Your task to perform on an android device: install app "Nova Launcher" Image 0: 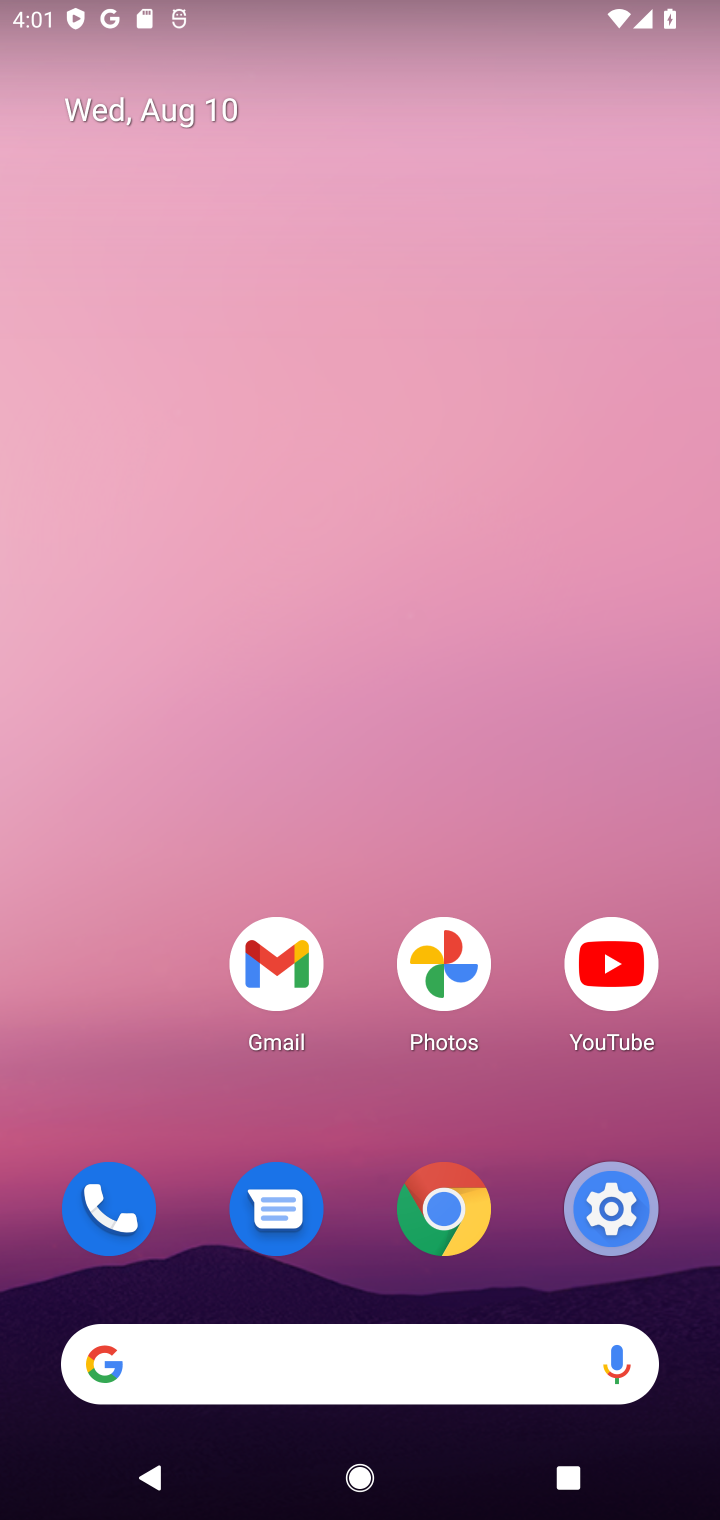
Step 0: click (615, 1218)
Your task to perform on an android device: install app "Nova Launcher" Image 1: 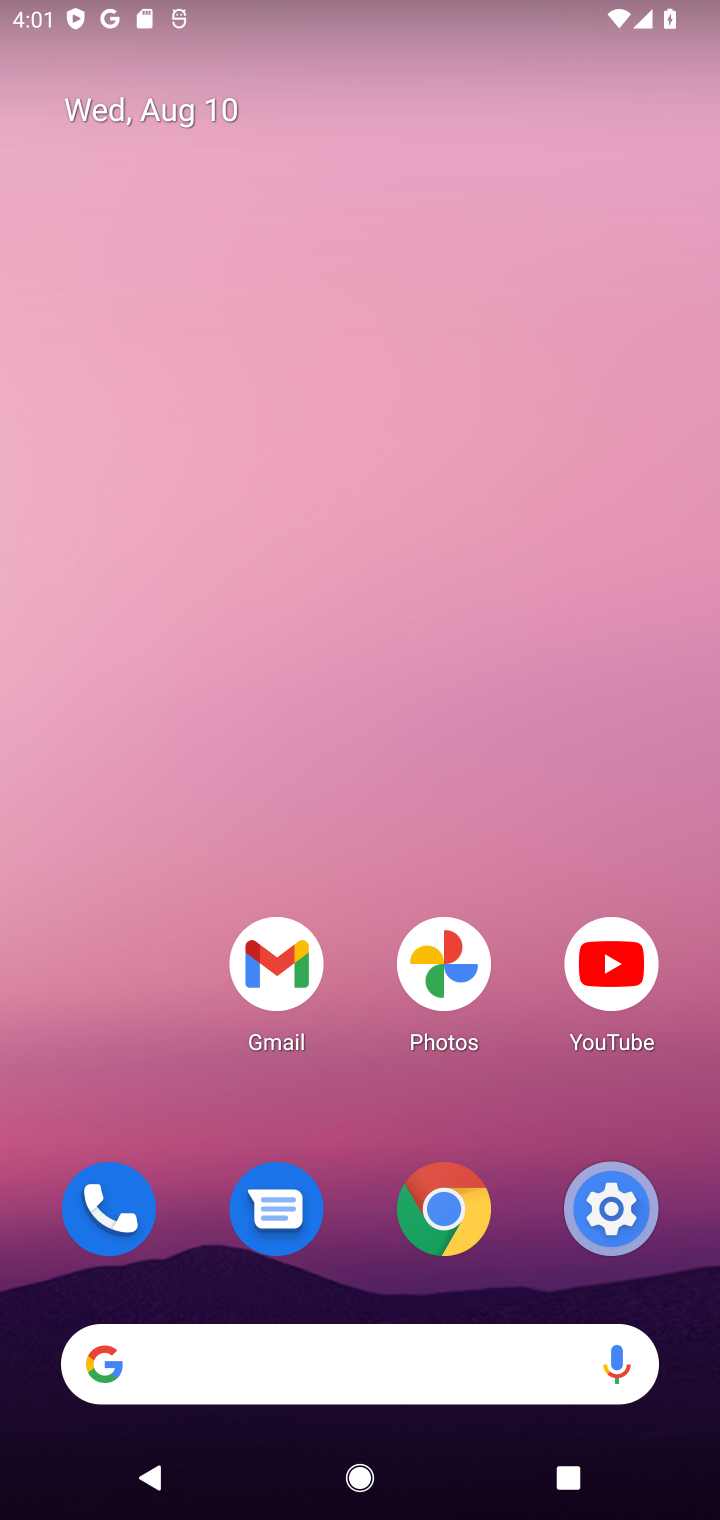
Step 1: click (615, 1218)
Your task to perform on an android device: install app "Nova Launcher" Image 2: 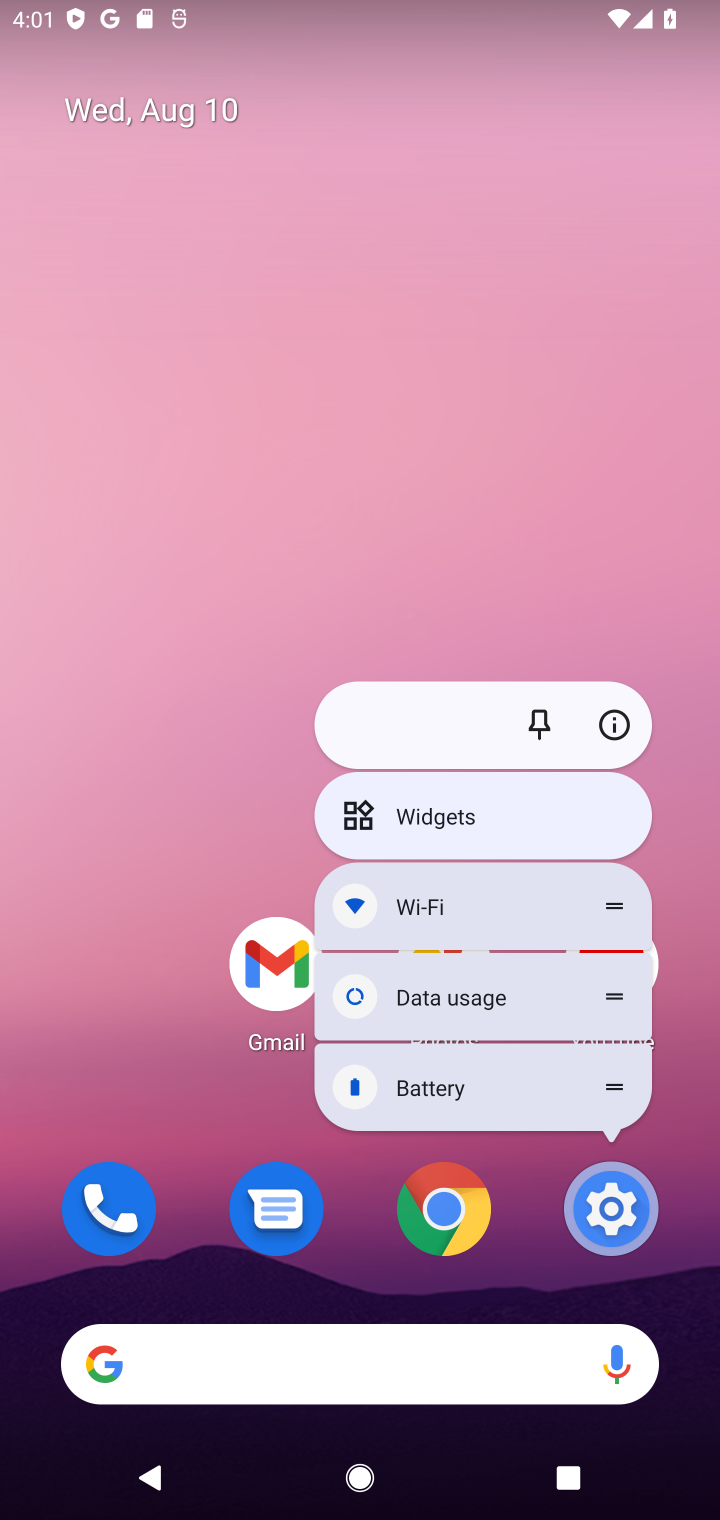
Step 2: click (476, 398)
Your task to perform on an android device: install app "Nova Launcher" Image 3: 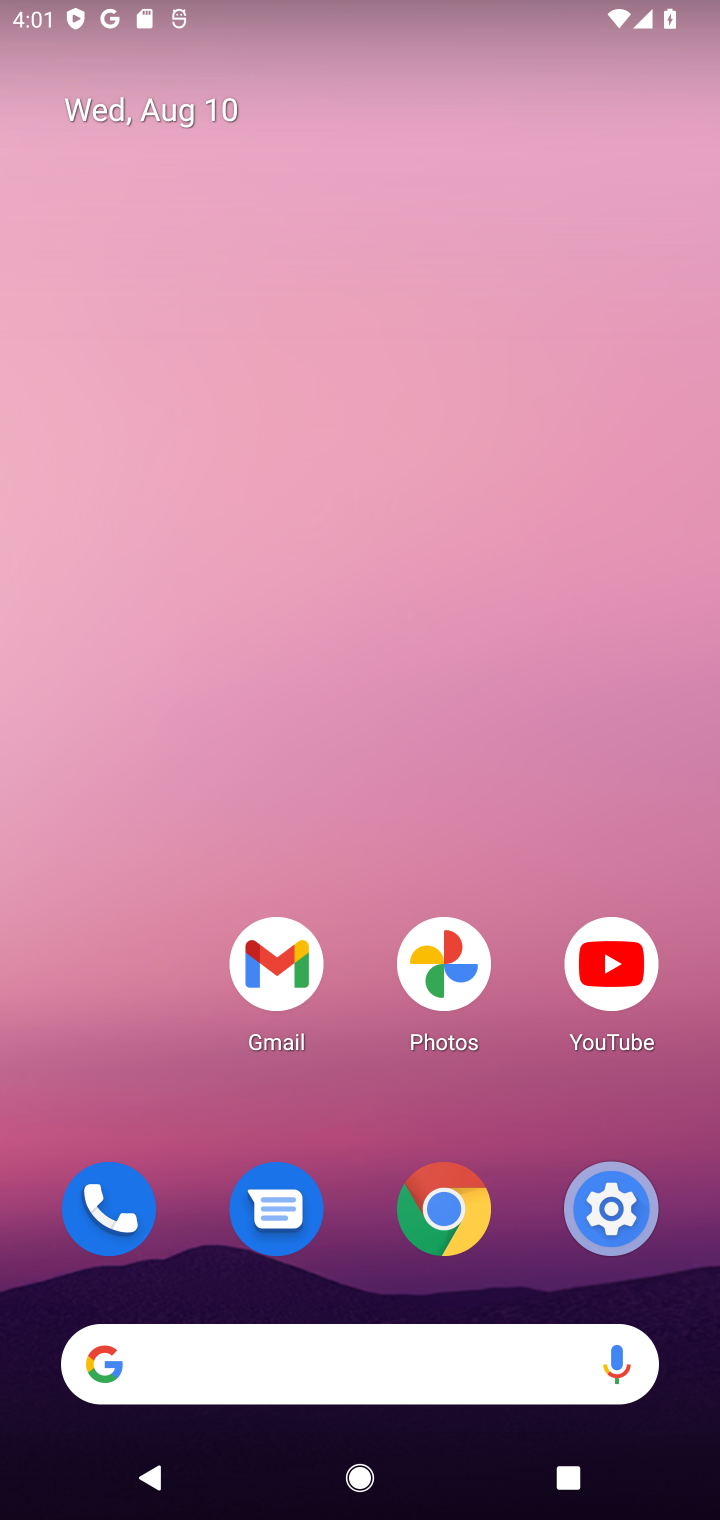
Step 3: drag from (388, 1295) to (630, 68)
Your task to perform on an android device: install app "Nova Launcher" Image 4: 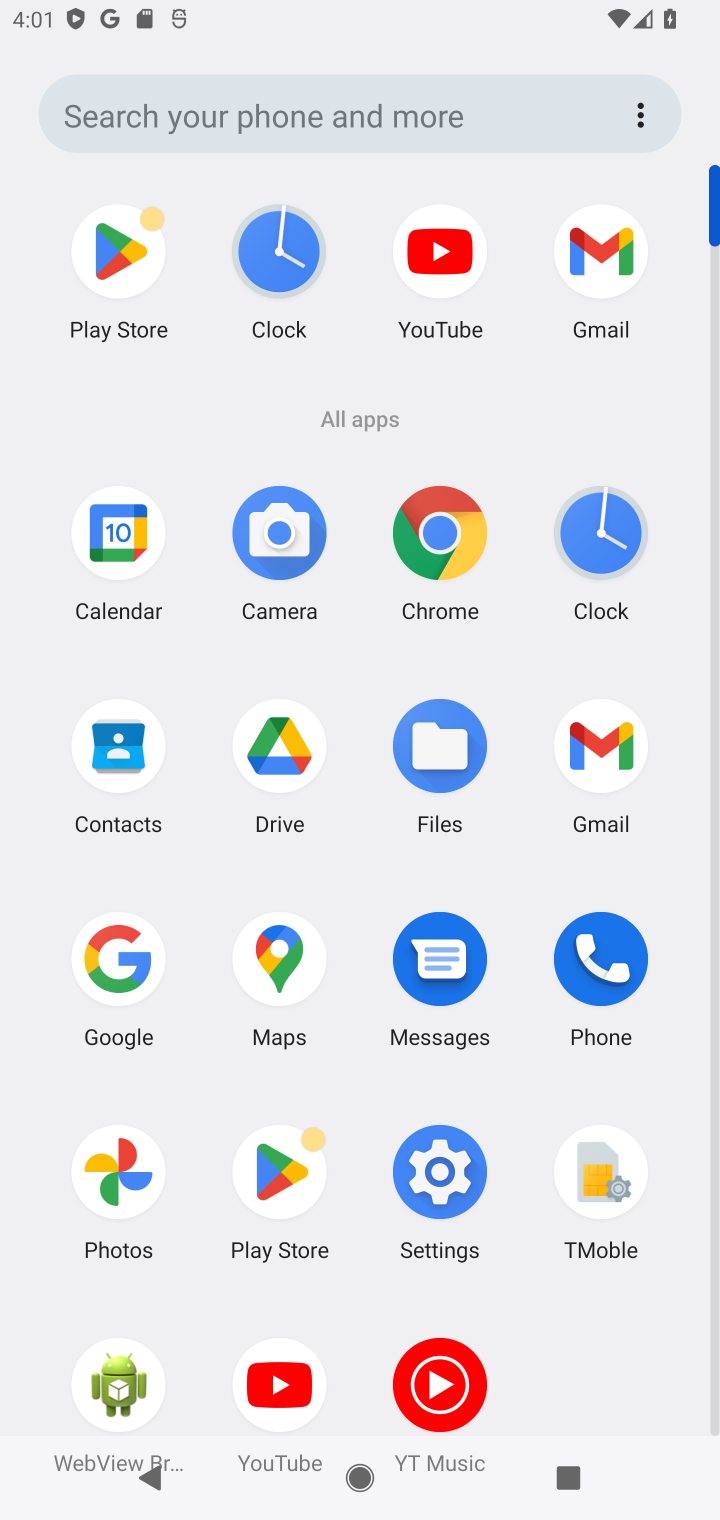
Step 4: click (287, 1176)
Your task to perform on an android device: install app "Nova Launcher" Image 5: 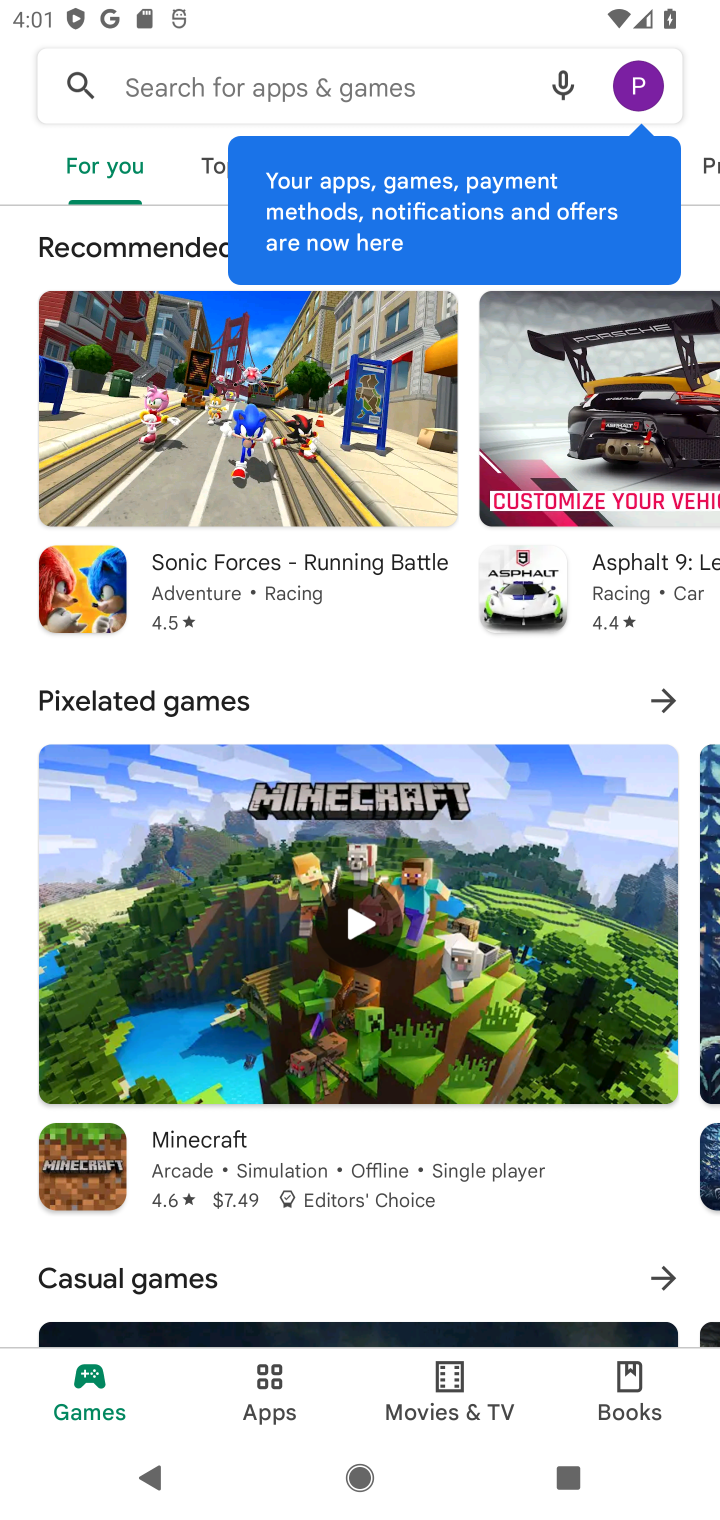
Step 5: click (336, 216)
Your task to perform on an android device: install app "Nova Launcher" Image 6: 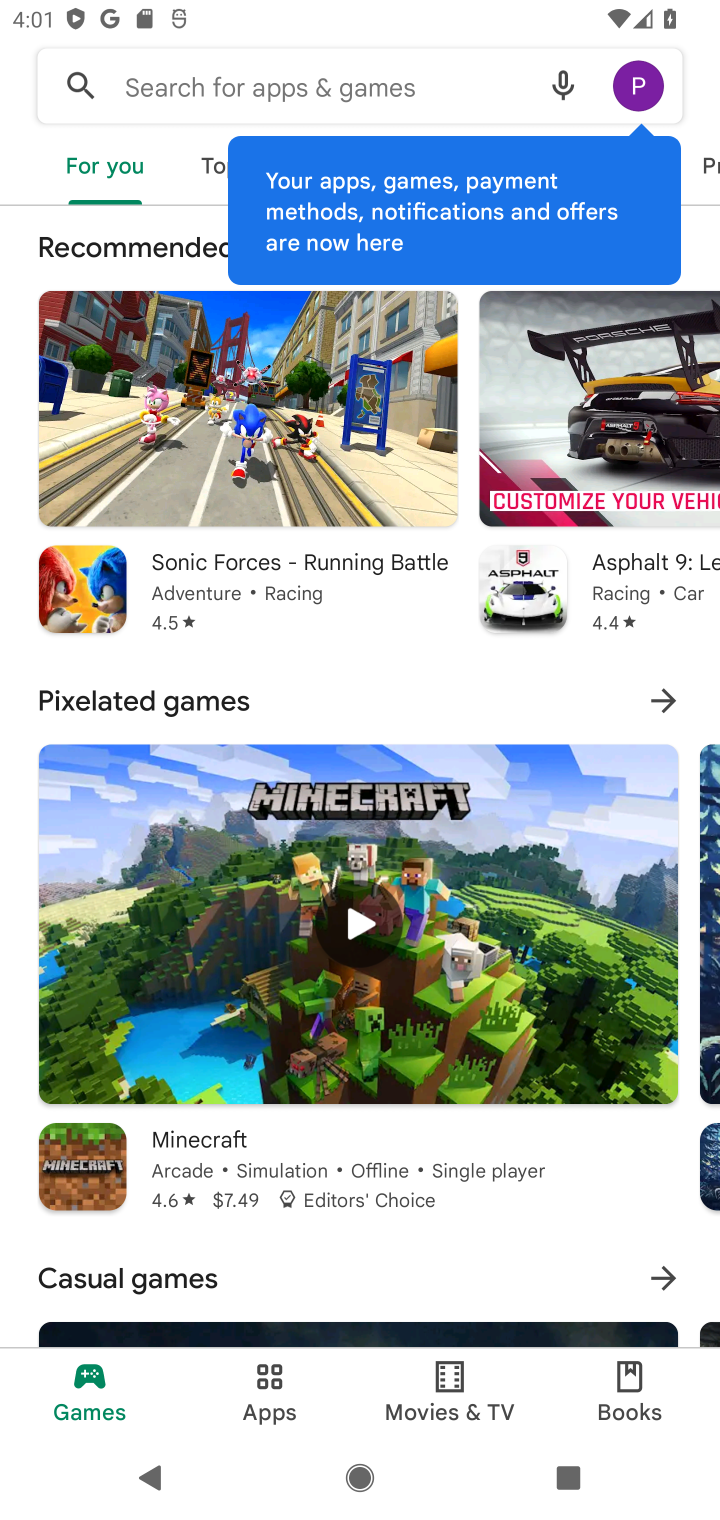
Step 6: click (336, 104)
Your task to perform on an android device: install app "Nova Launcher" Image 7: 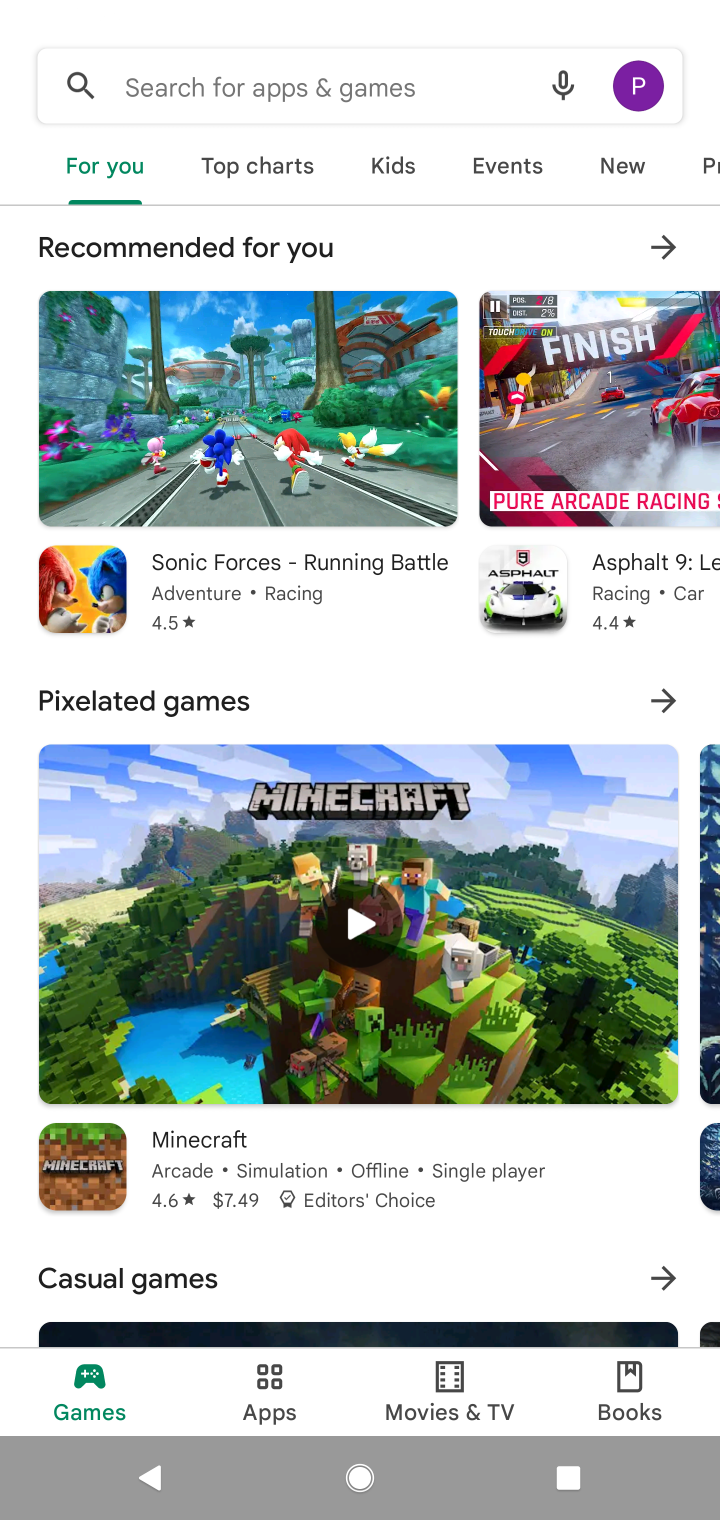
Step 7: click (336, 104)
Your task to perform on an android device: install app "Nova Launcher" Image 8: 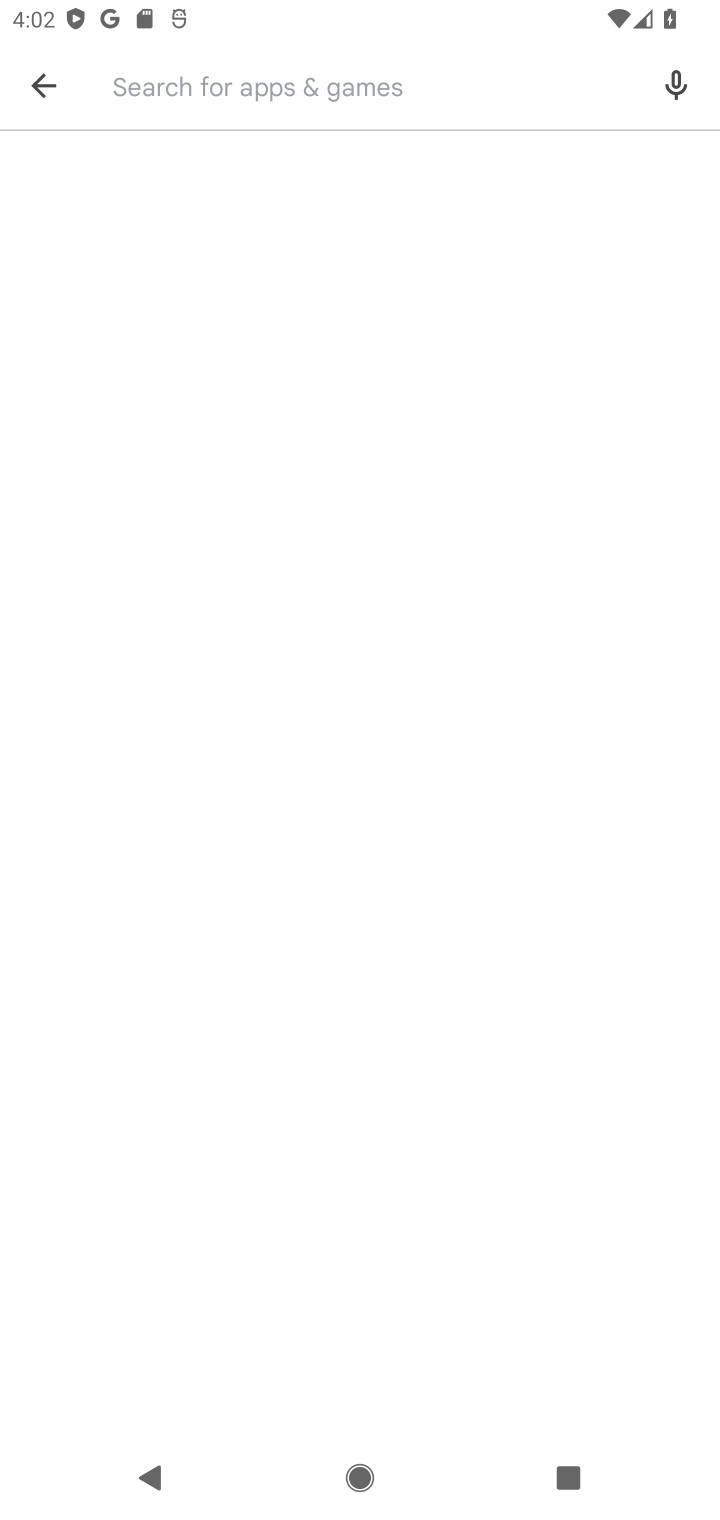
Step 8: type "nova lanuncher"
Your task to perform on an android device: install app "Nova Launcher" Image 9: 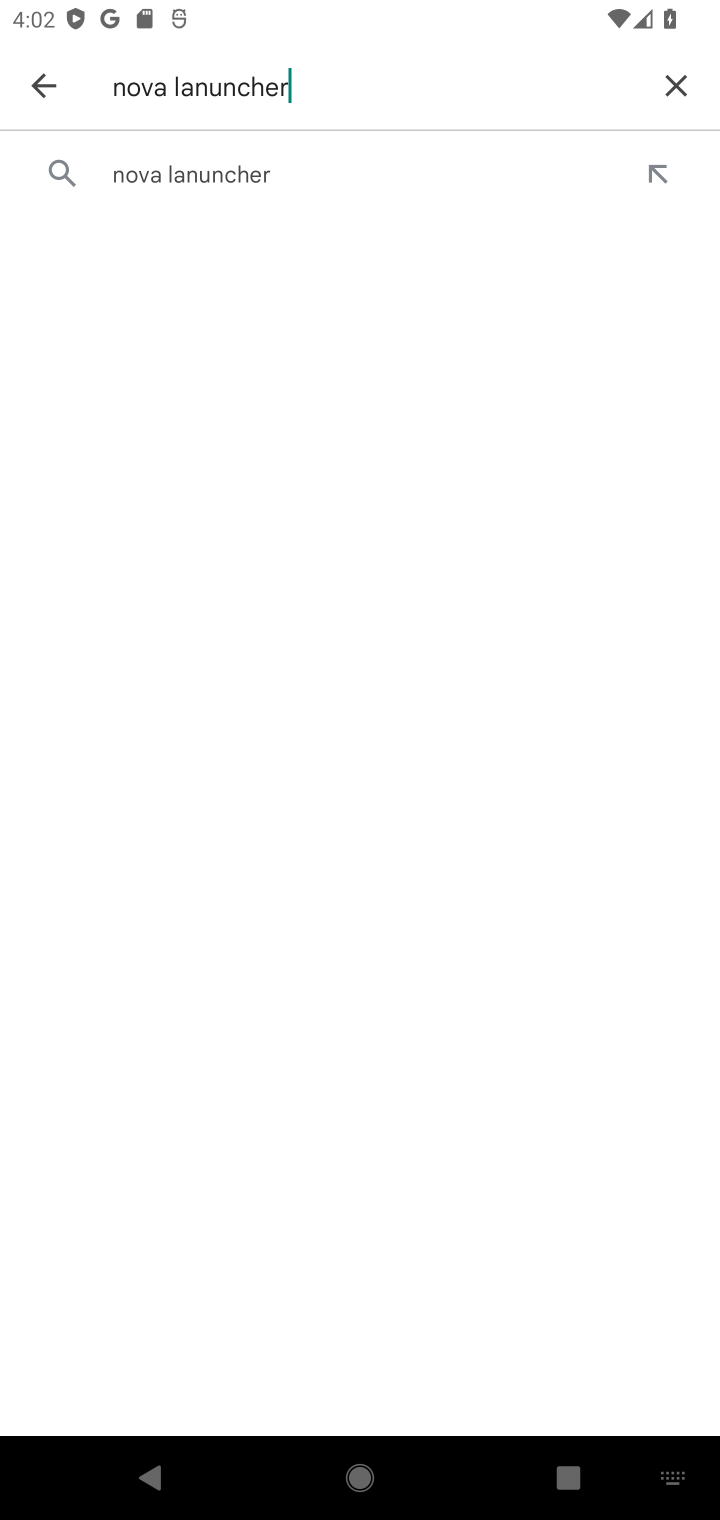
Step 9: click (435, 173)
Your task to perform on an android device: install app "Nova Launcher" Image 10: 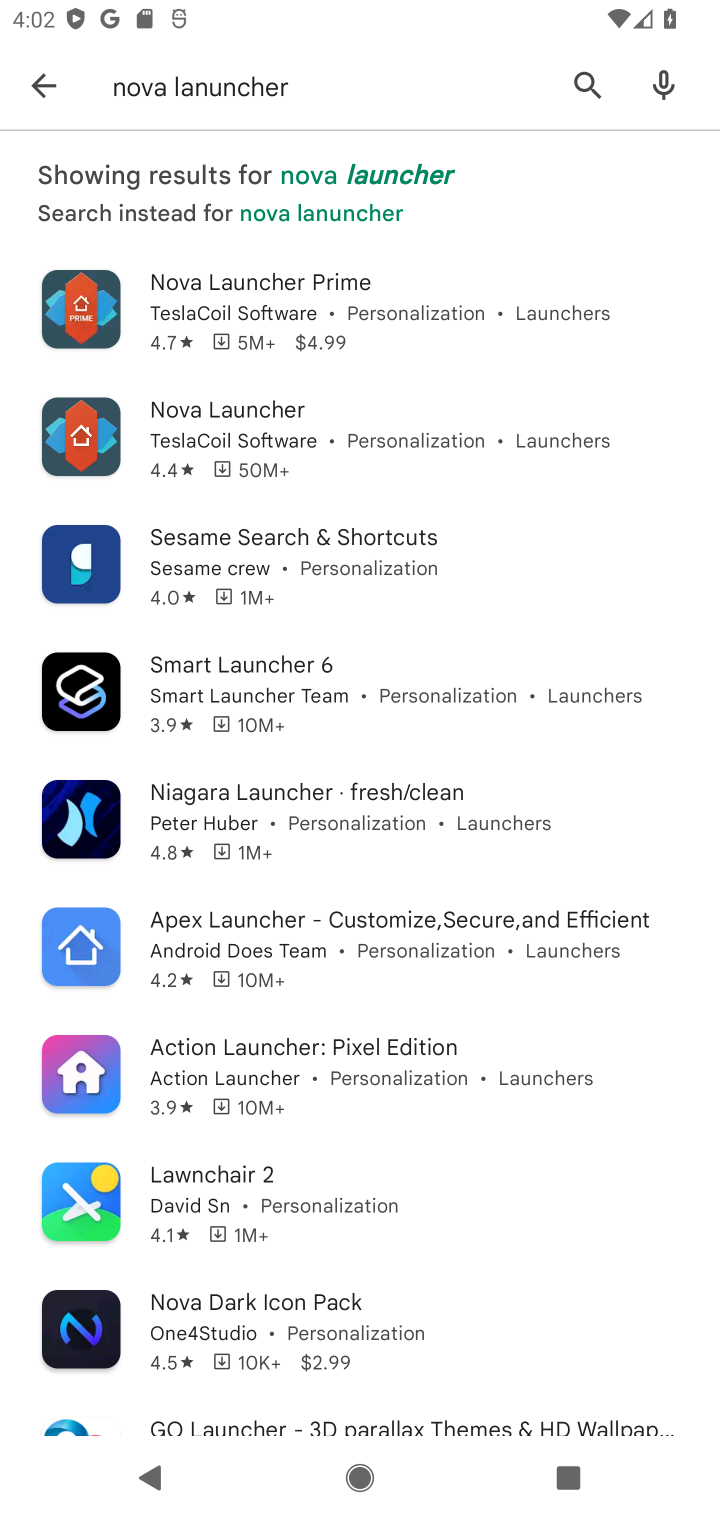
Step 10: click (375, 272)
Your task to perform on an android device: install app "Nova Launcher" Image 11: 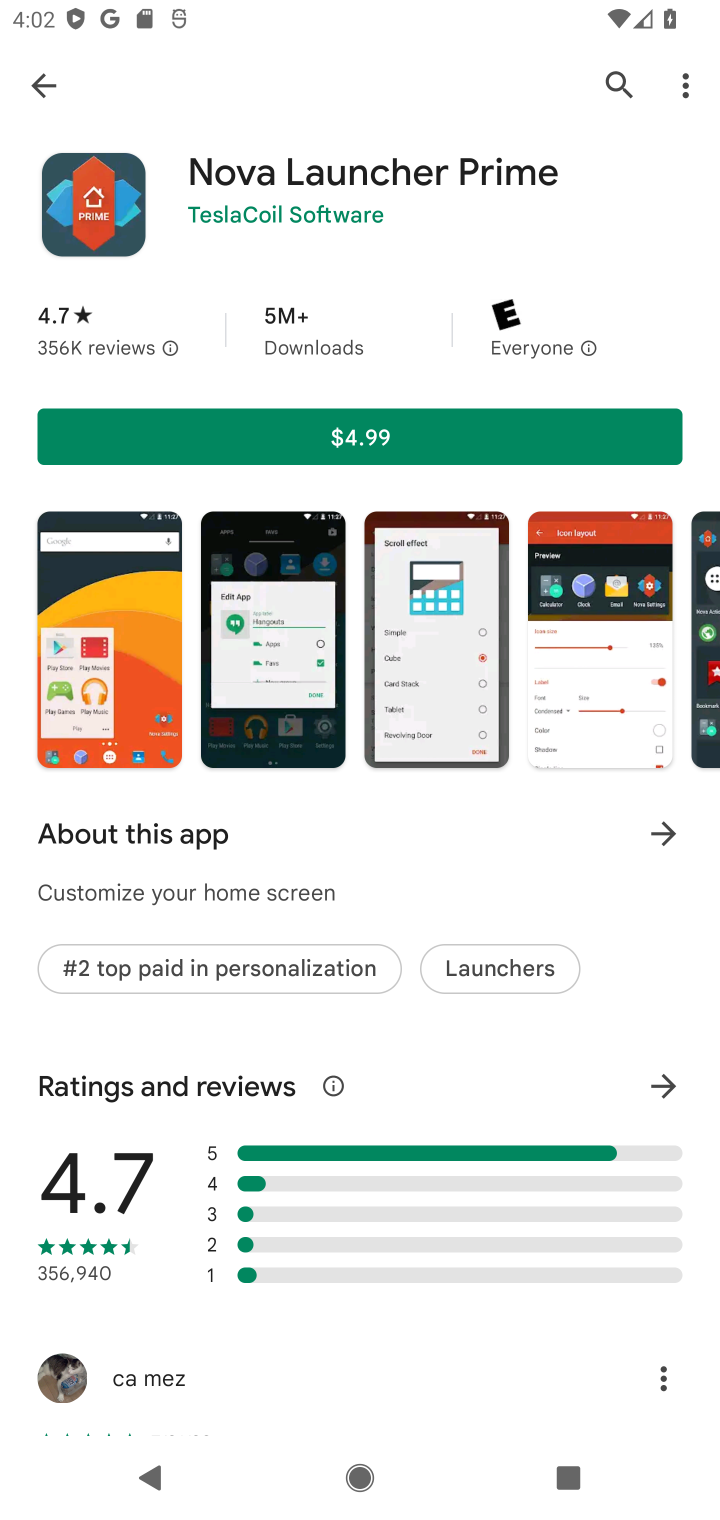
Step 11: click (443, 452)
Your task to perform on an android device: install app "Nova Launcher" Image 12: 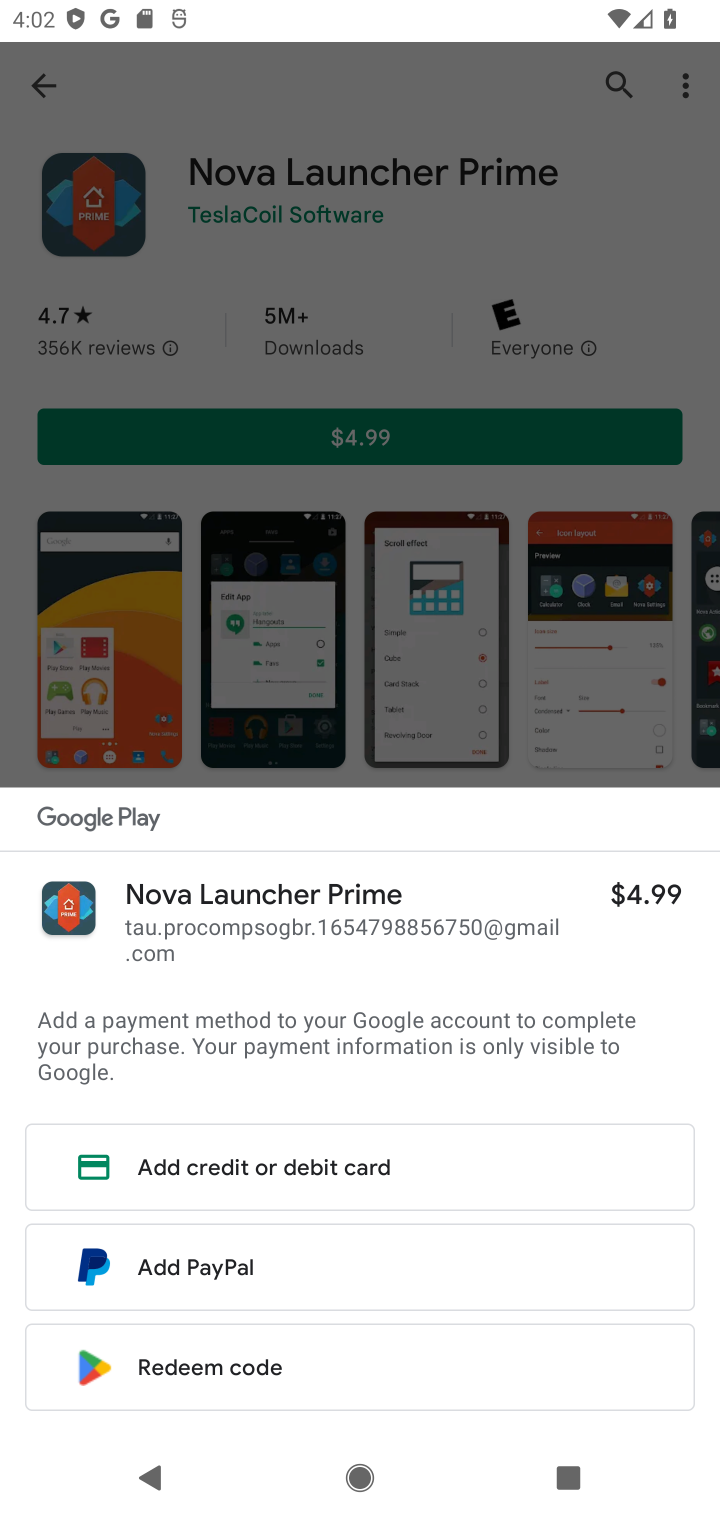
Step 12: task complete